Your task to perform on an android device: delete the emails in spam in the gmail app Image 0: 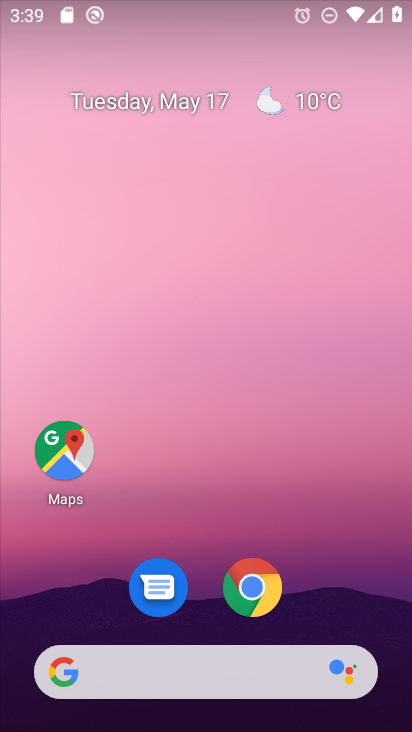
Step 0: drag from (312, 507) to (267, 18)
Your task to perform on an android device: delete the emails in spam in the gmail app Image 1: 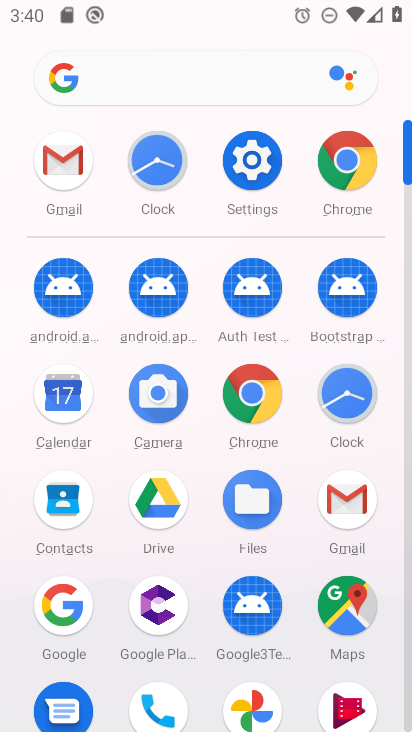
Step 1: drag from (16, 587) to (48, 239)
Your task to perform on an android device: delete the emails in spam in the gmail app Image 2: 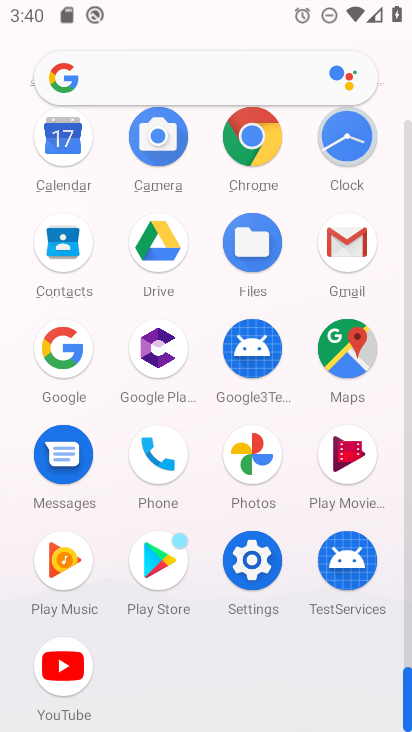
Step 2: click (346, 239)
Your task to perform on an android device: delete the emails in spam in the gmail app Image 3: 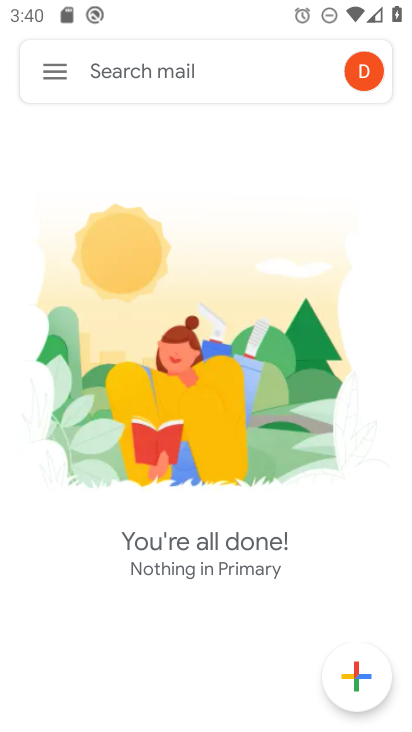
Step 3: click (55, 68)
Your task to perform on an android device: delete the emails in spam in the gmail app Image 4: 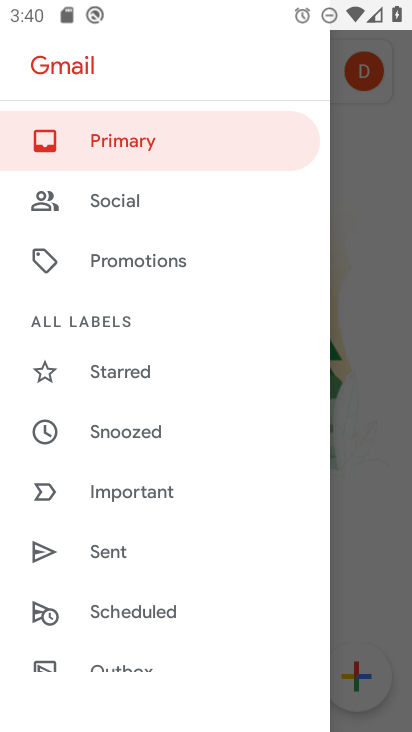
Step 4: drag from (109, 582) to (119, 181)
Your task to perform on an android device: delete the emails in spam in the gmail app Image 5: 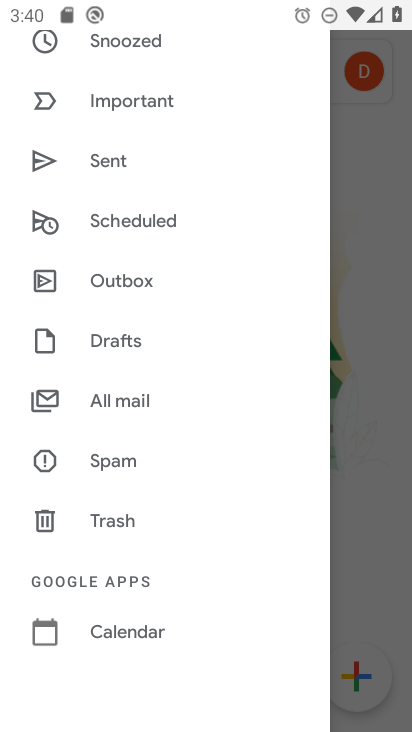
Step 5: click (124, 455)
Your task to perform on an android device: delete the emails in spam in the gmail app Image 6: 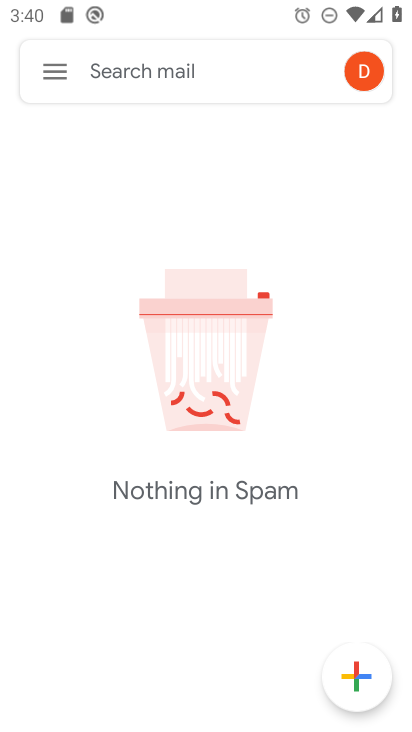
Step 6: task complete